Your task to perform on an android device: Open the calendar and show me this week's events? Image 0: 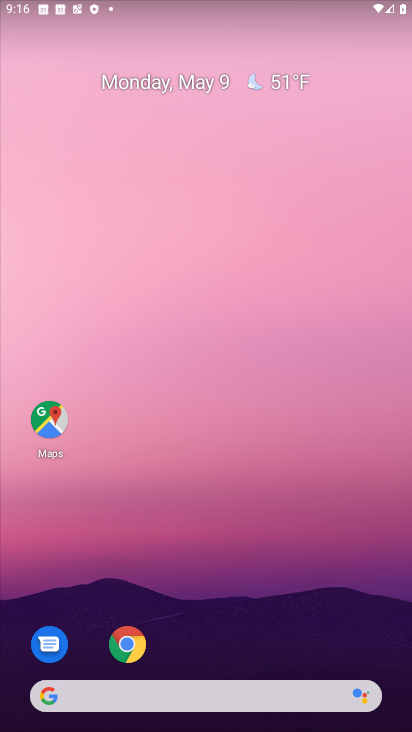
Step 0: drag from (185, 670) to (152, 49)
Your task to perform on an android device: Open the calendar and show me this week's events? Image 1: 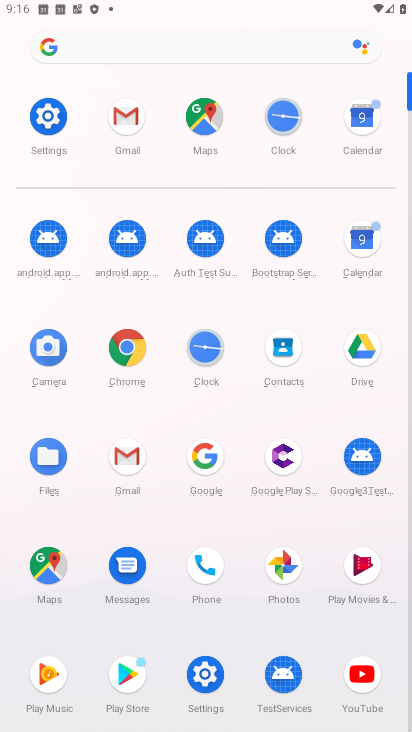
Step 1: click (352, 255)
Your task to perform on an android device: Open the calendar and show me this week's events? Image 2: 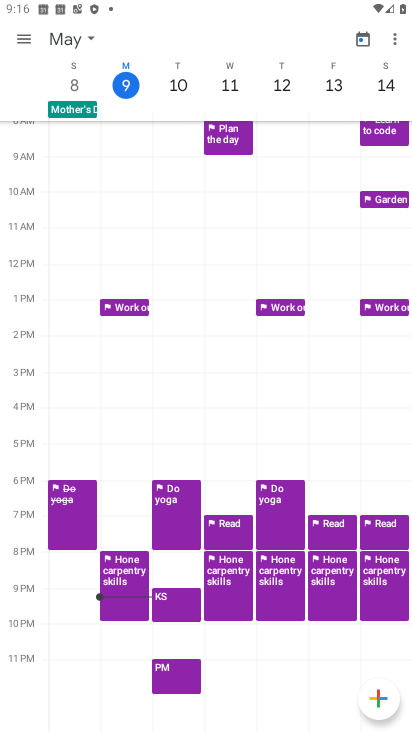
Step 2: task complete